Your task to perform on an android device: install app "File Manager" Image 0: 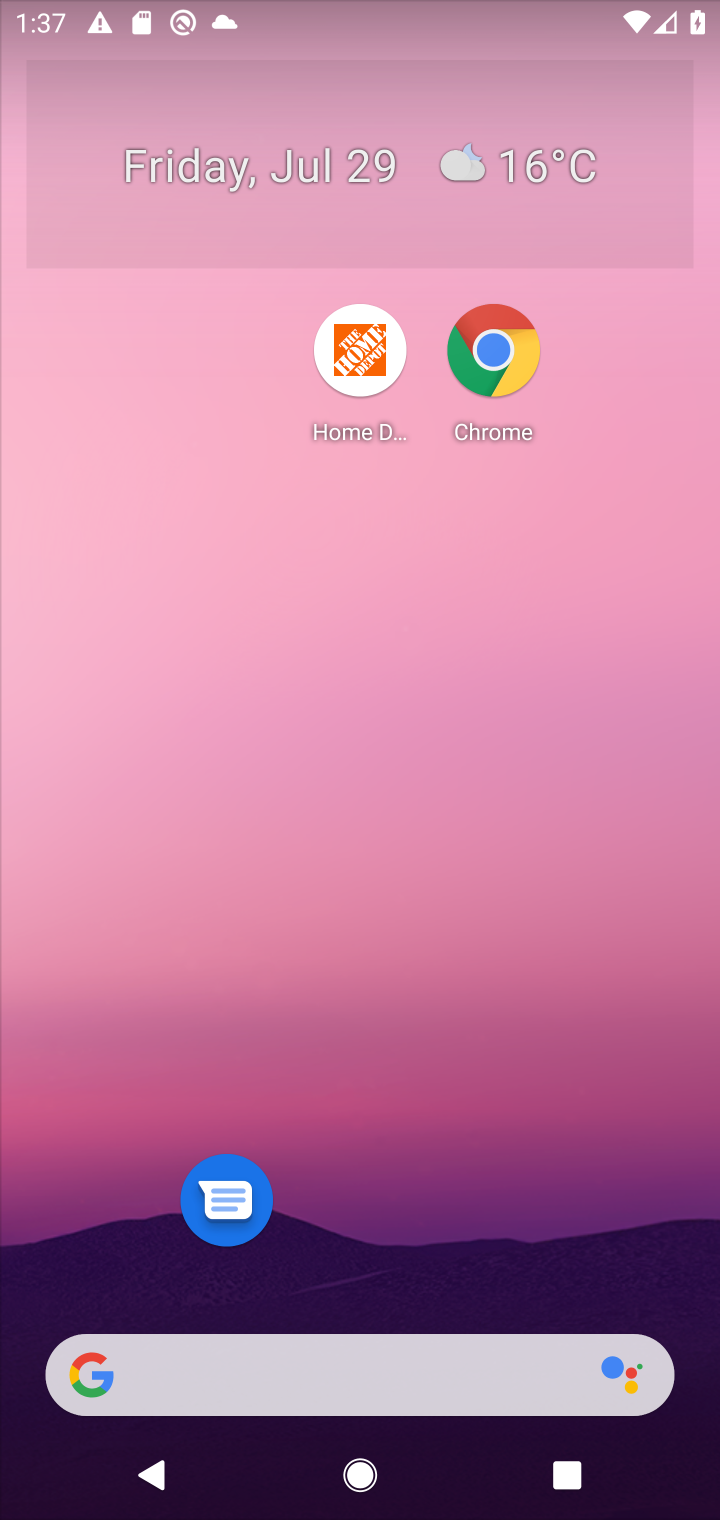
Step 0: drag from (400, 1179) to (388, 130)
Your task to perform on an android device: install app "File Manager" Image 1: 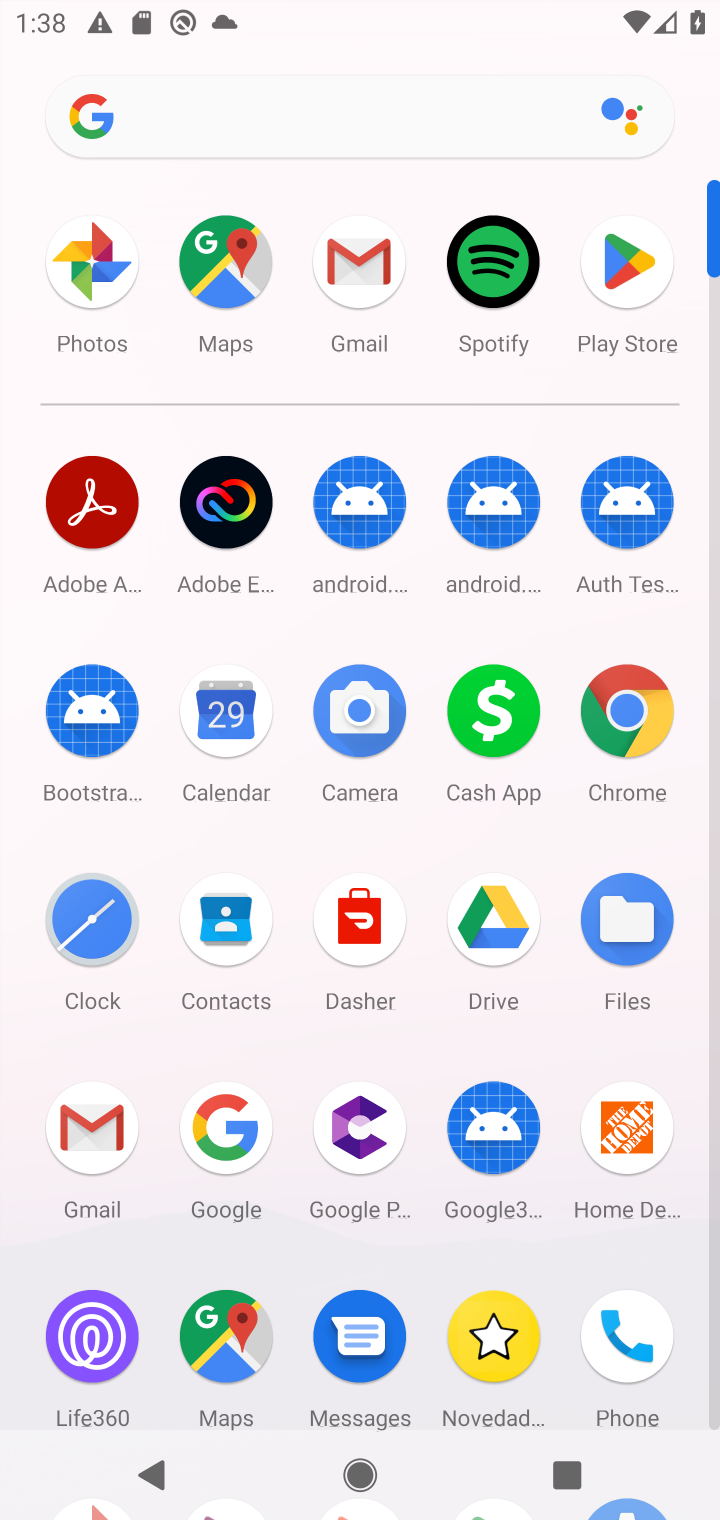
Step 1: click (626, 251)
Your task to perform on an android device: install app "File Manager" Image 2: 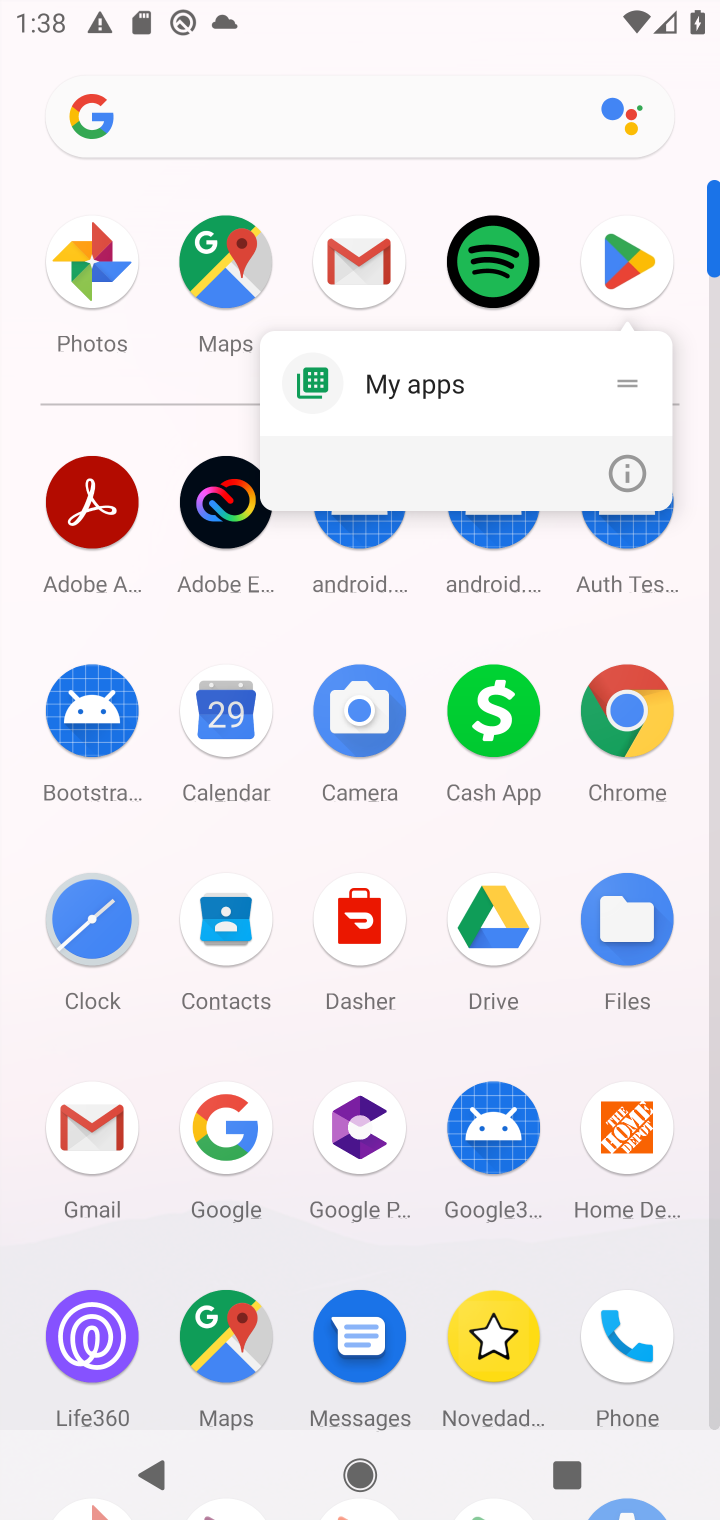
Step 2: click (616, 261)
Your task to perform on an android device: install app "File Manager" Image 3: 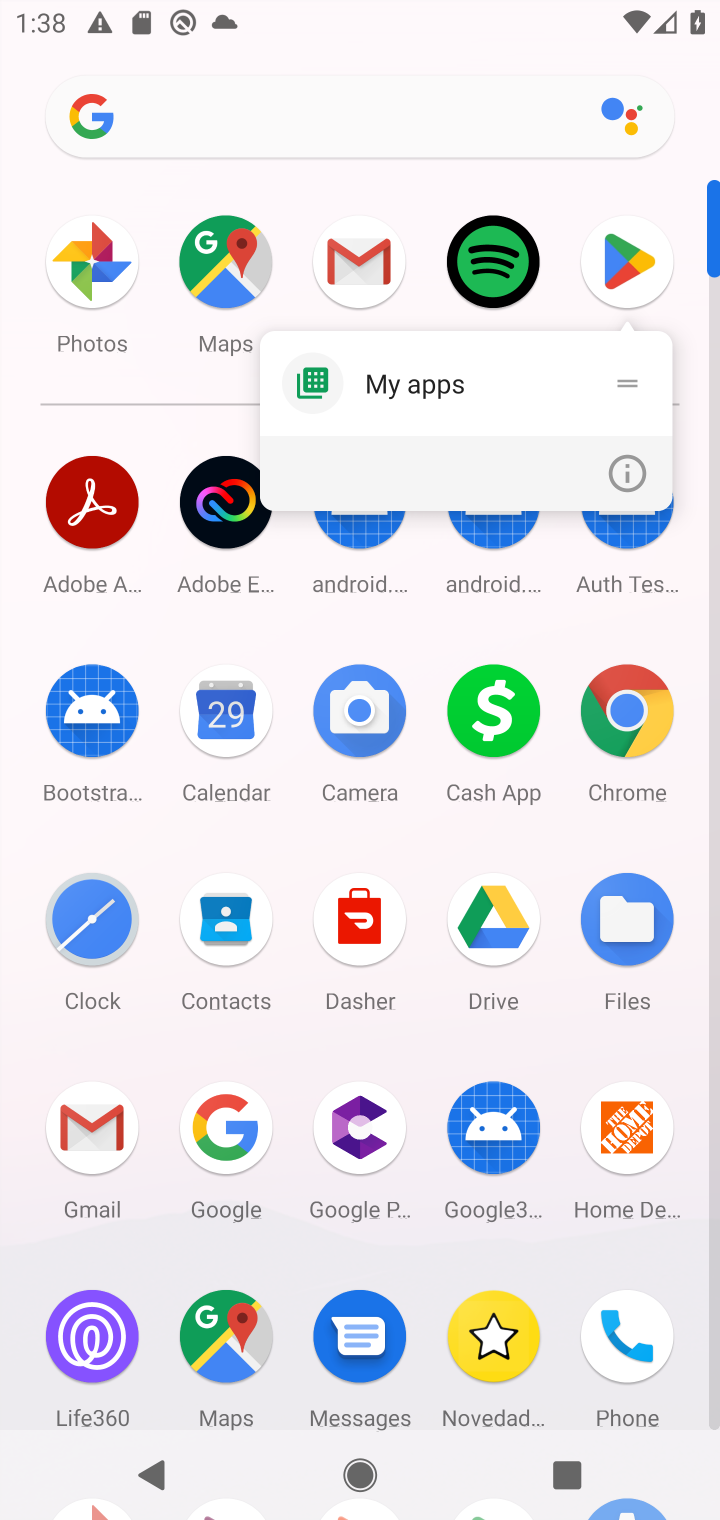
Step 3: click (625, 263)
Your task to perform on an android device: install app "File Manager" Image 4: 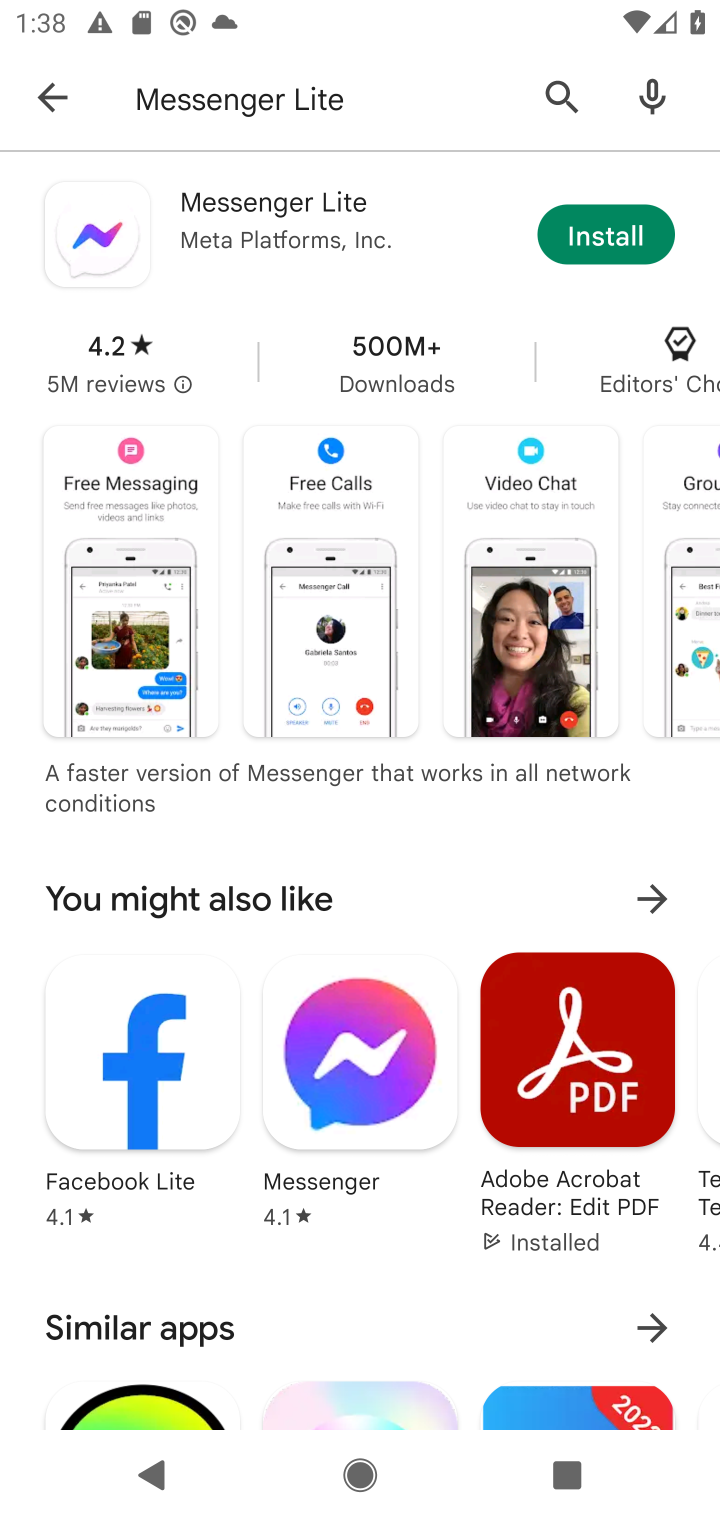
Step 4: click (313, 97)
Your task to perform on an android device: install app "File Manager" Image 5: 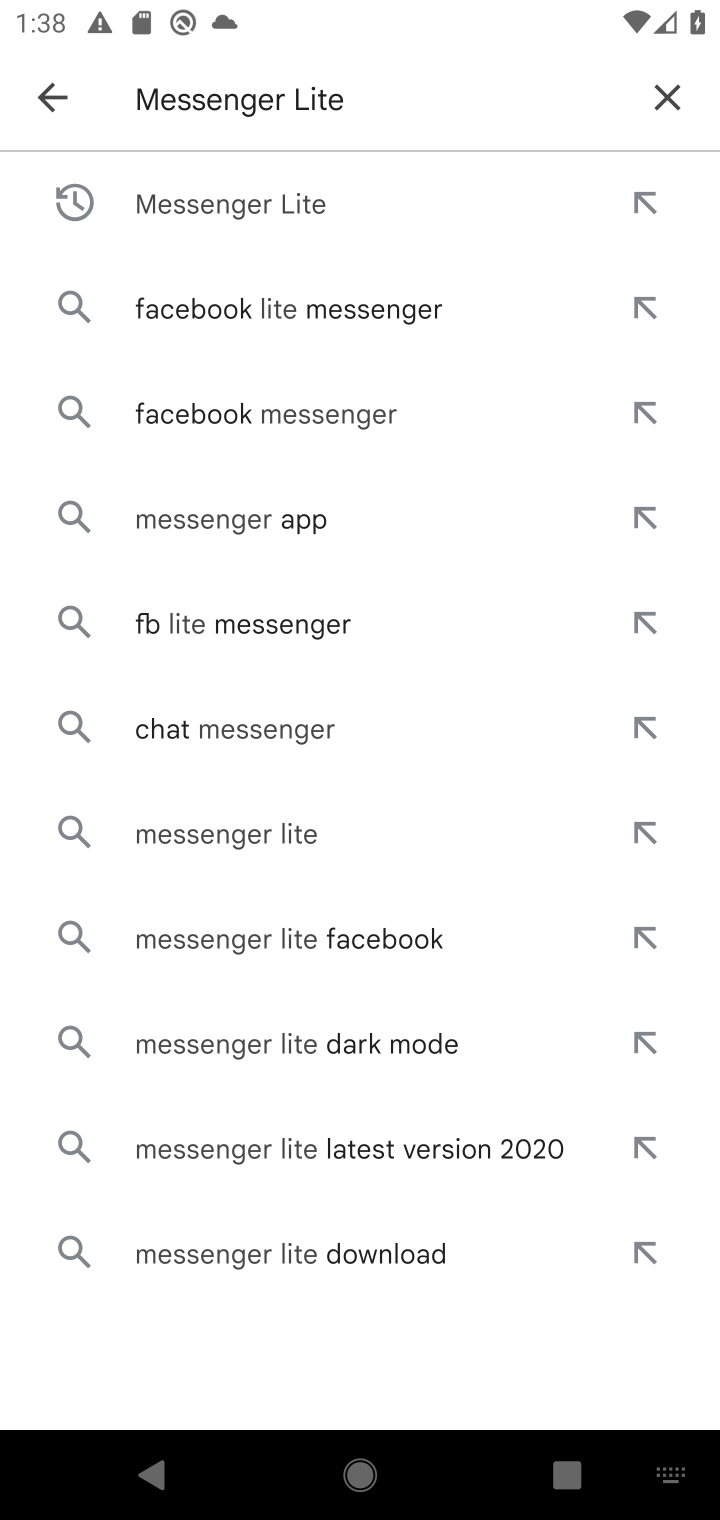
Step 5: click (669, 90)
Your task to perform on an android device: install app "File Manager" Image 6: 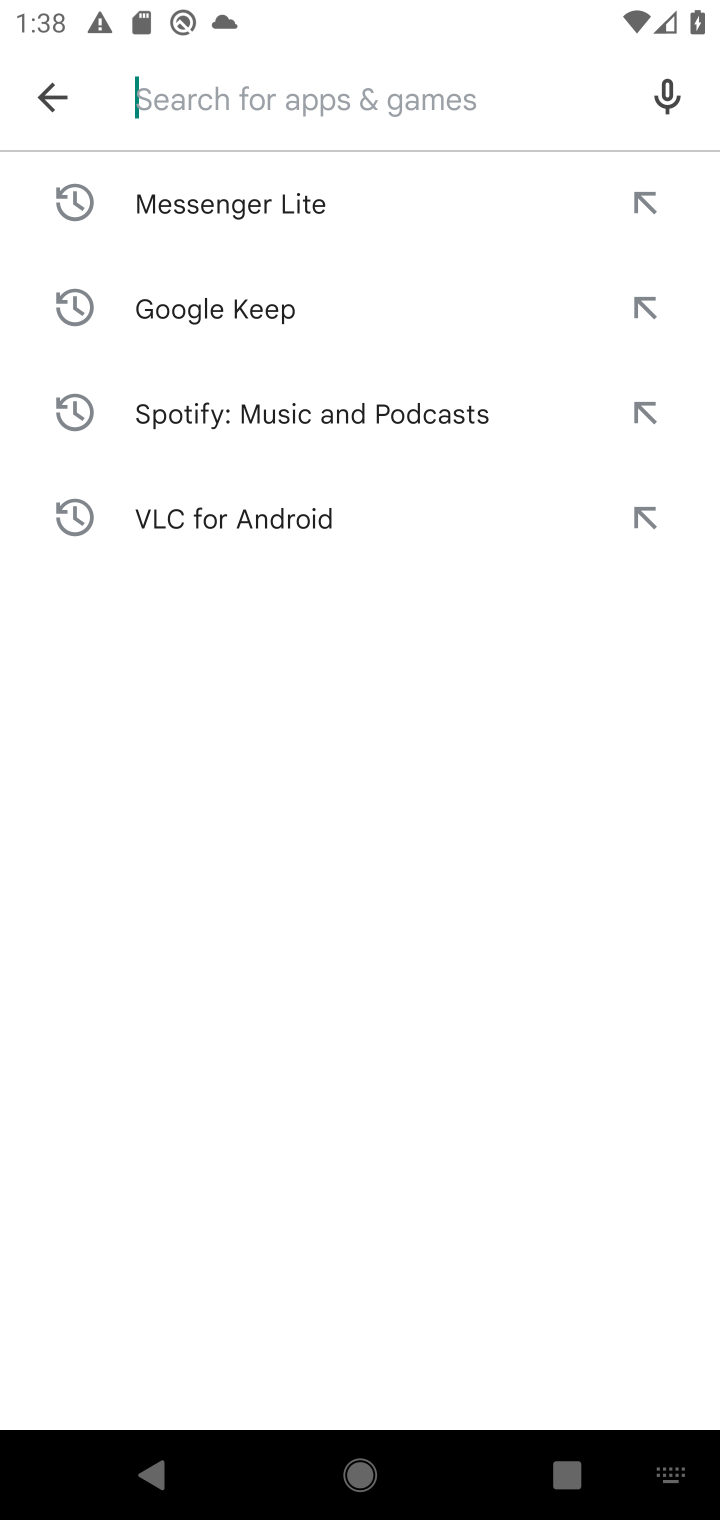
Step 6: type "File Manager"
Your task to perform on an android device: install app "File Manager" Image 7: 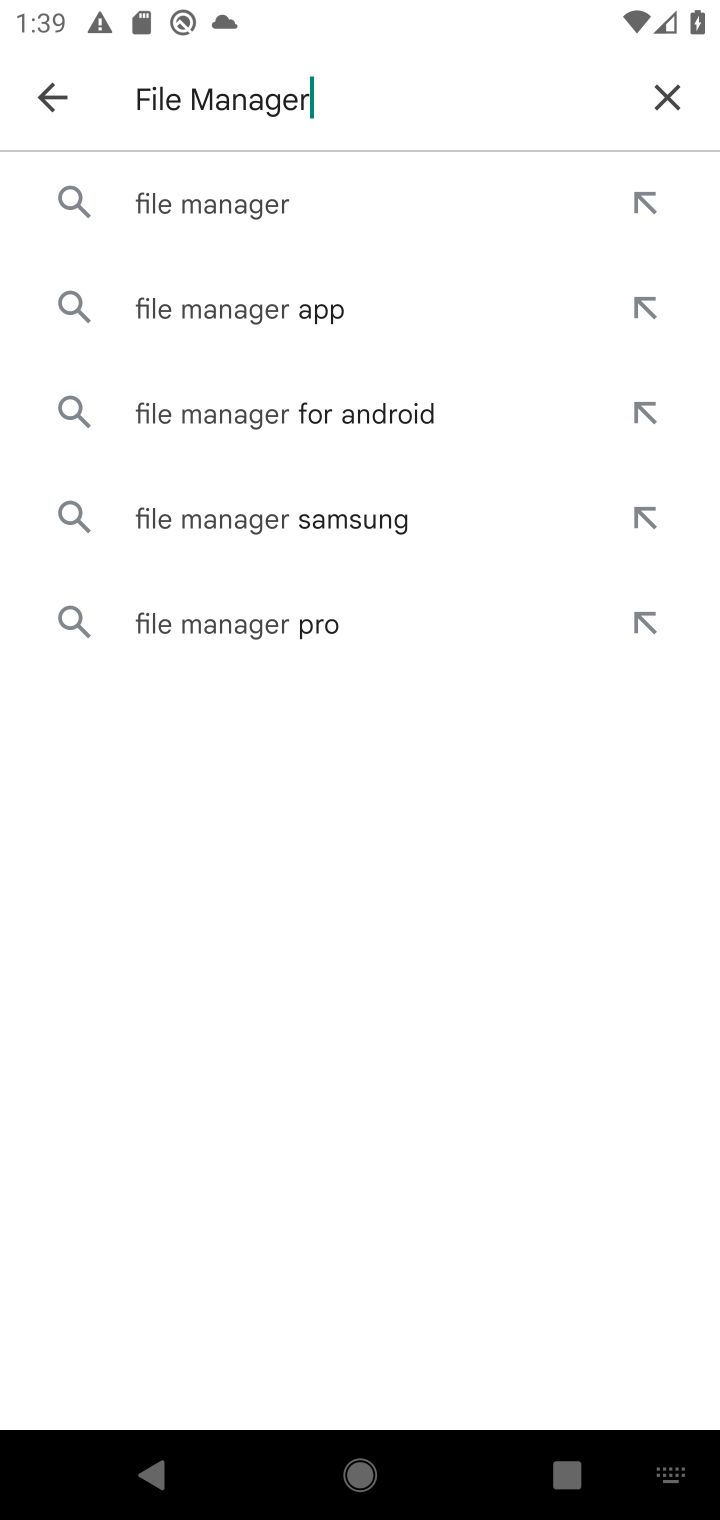
Step 7: press enter
Your task to perform on an android device: install app "File Manager" Image 8: 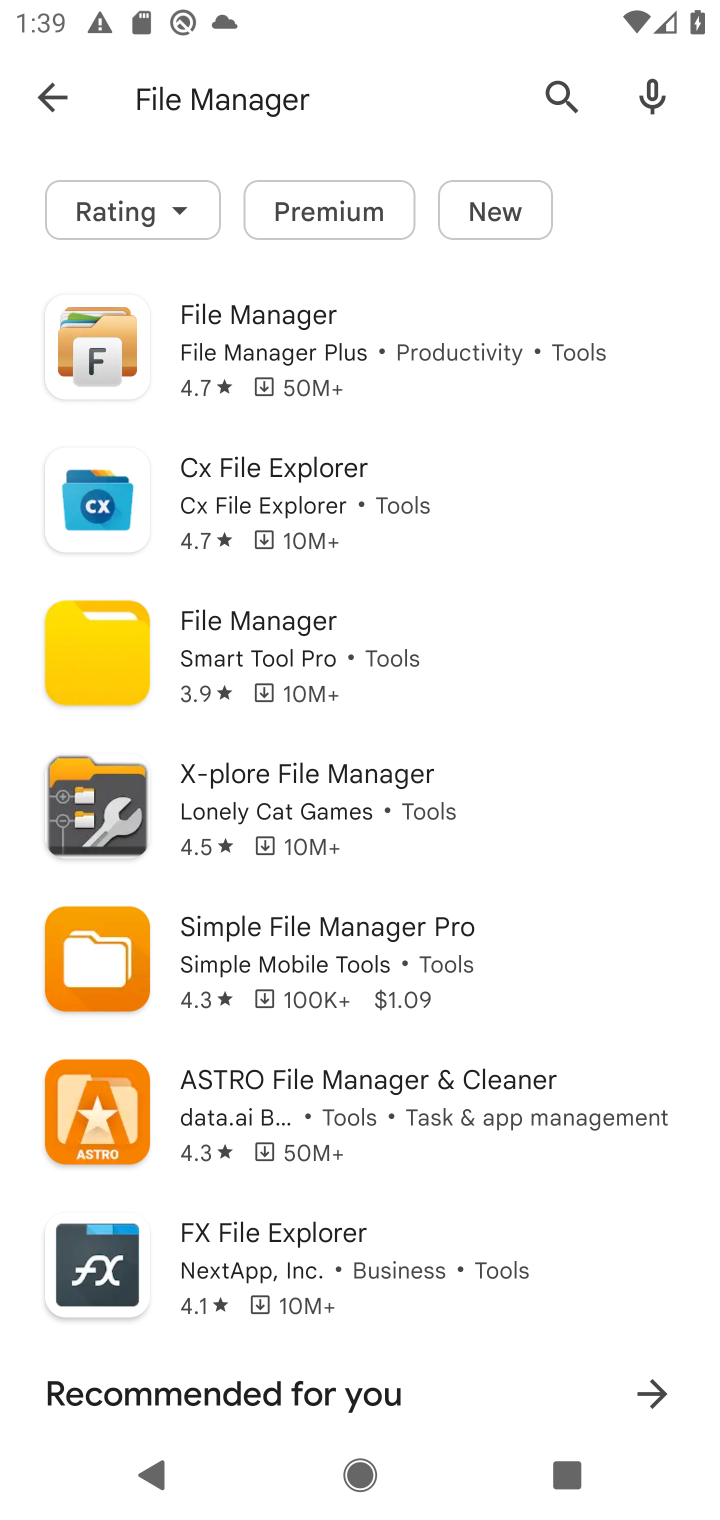
Step 8: click (205, 353)
Your task to perform on an android device: install app "File Manager" Image 9: 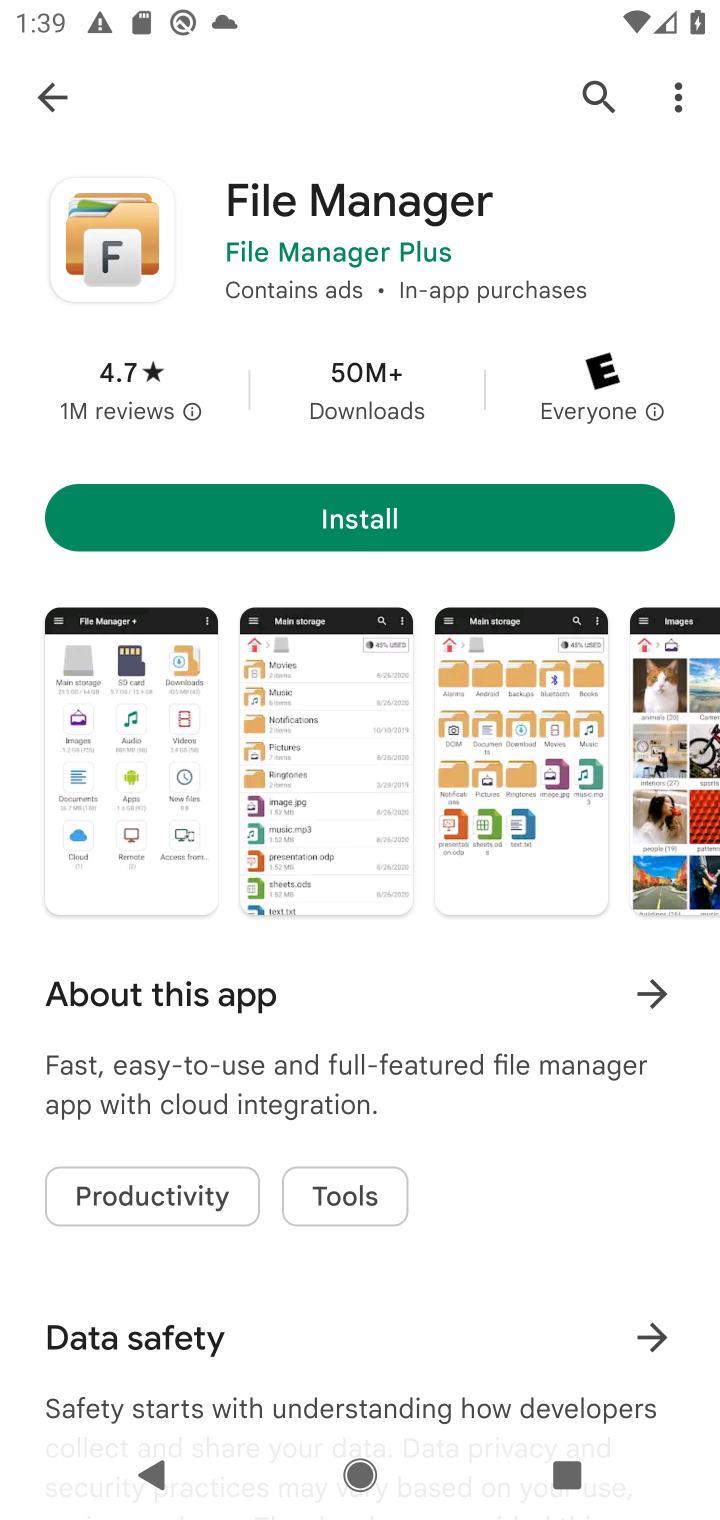
Step 9: click (382, 503)
Your task to perform on an android device: install app "File Manager" Image 10: 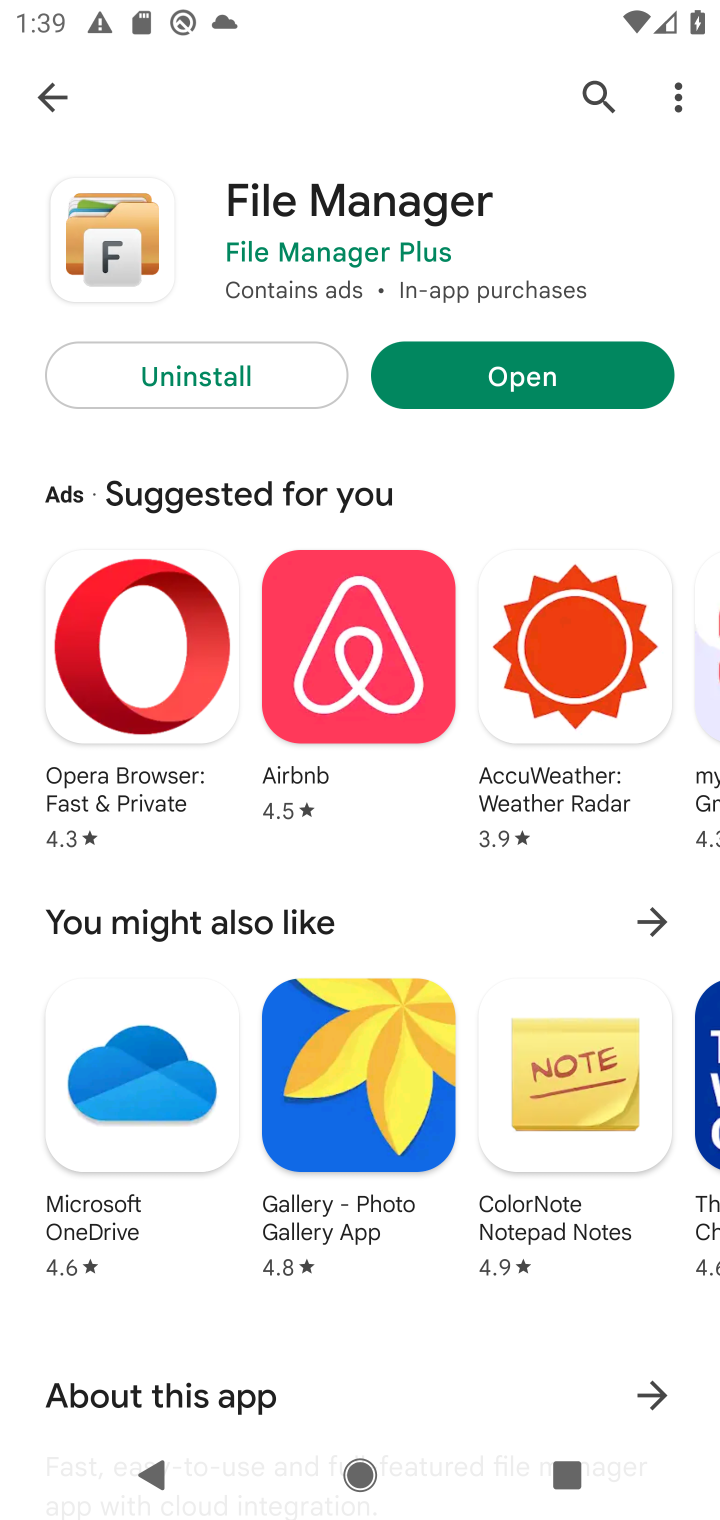
Step 10: task complete